Your task to perform on an android device: change keyboard looks Image 0: 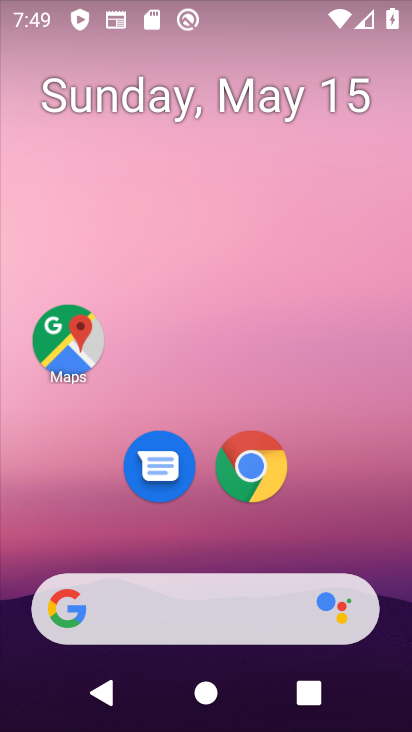
Step 0: drag from (180, 546) to (373, 69)
Your task to perform on an android device: change keyboard looks Image 1: 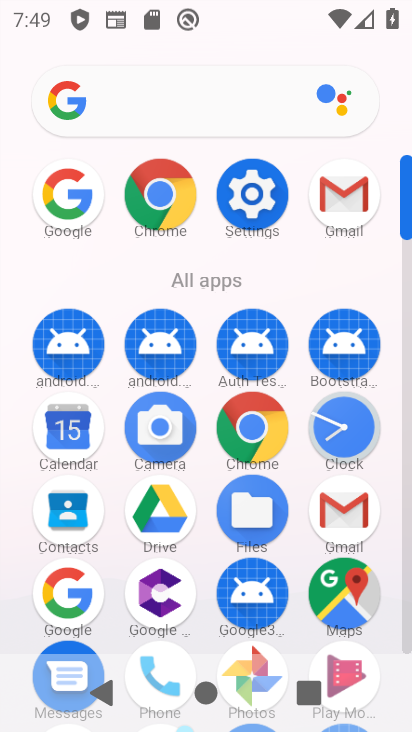
Step 1: click (241, 202)
Your task to perform on an android device: change keyboard looks Image 2: 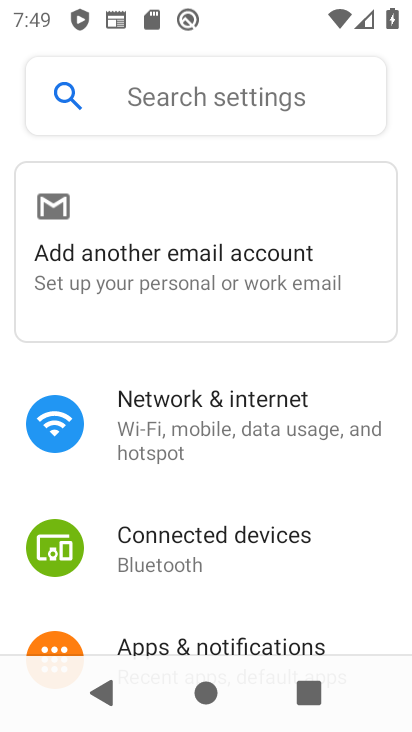
Step 2: drag from (250, 585) to (243, 1)
Your task to perform on an android device: change keyboard looks Image 3: 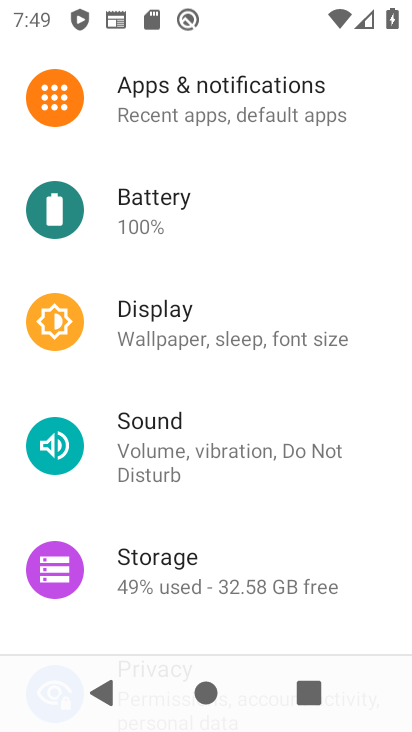
Step 3: drag from (232, 601) to (236, 111)
Your task to perform on an android device: change keyboard looks Image 4: 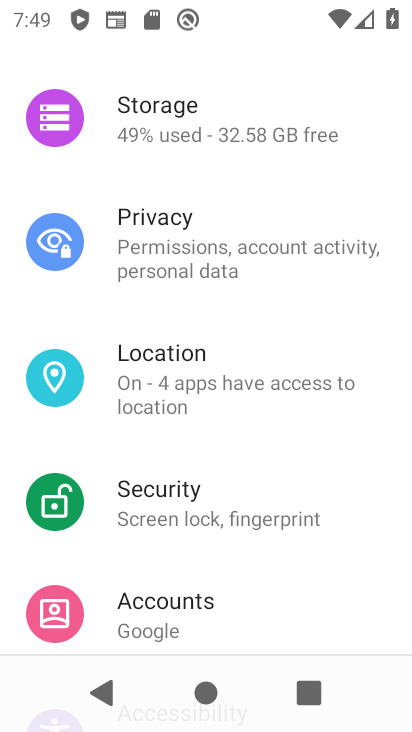
Step 4: drag from (199, 535) to (163, 100)
Your task to perform on an android device: change keyboard looks Image 5: 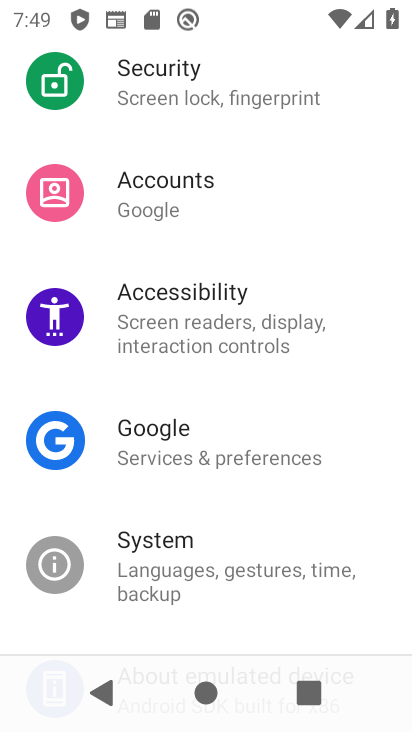
Step 5: click (163, 548)
Your task to perform on an android device: change keyboard looks Image 6: 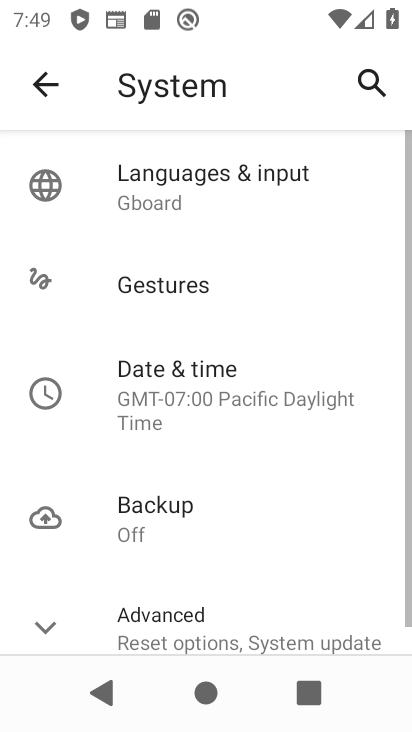
Step 6: drag from (161, 551) to (161, 183)
Your task to perform on an android device: change keyboard looks Image 7: 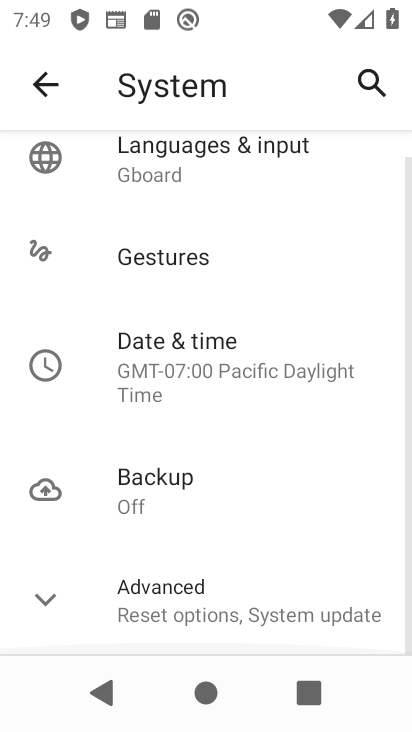
Step 7: click (186, 599)
Your task to perform on an android device: change keyboard looks Image 8: 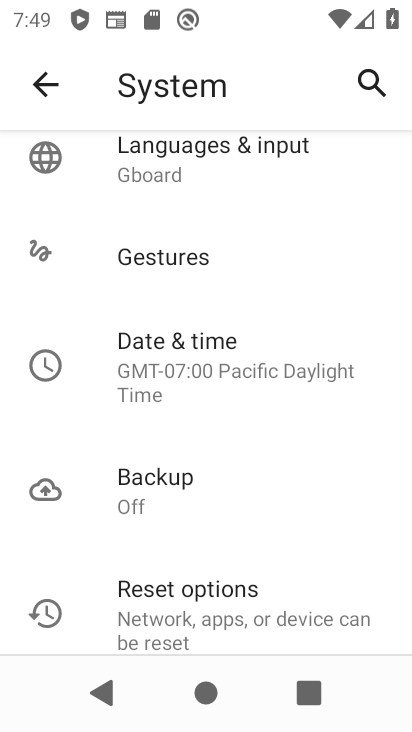
Step 8: drag from (189, 598) to (165, 191)
Your task to perform on an android device: change keyboard looks Image 9: 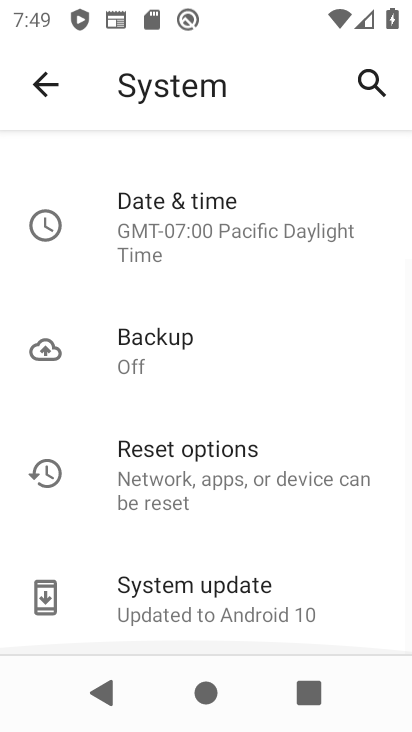
Step 9: drag from (165, 190) to (148, 575)
Your task to perform on an android device: change keyboard looks Image 10: 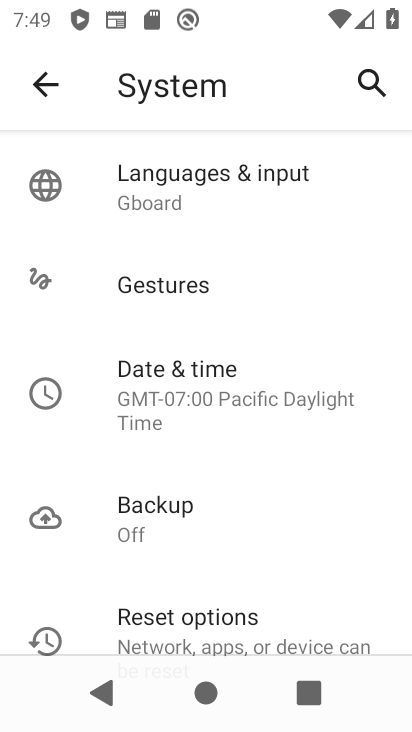
Step 10: click (193, 188)
Your task to perform on an android device: change keyboard looks Image 11: 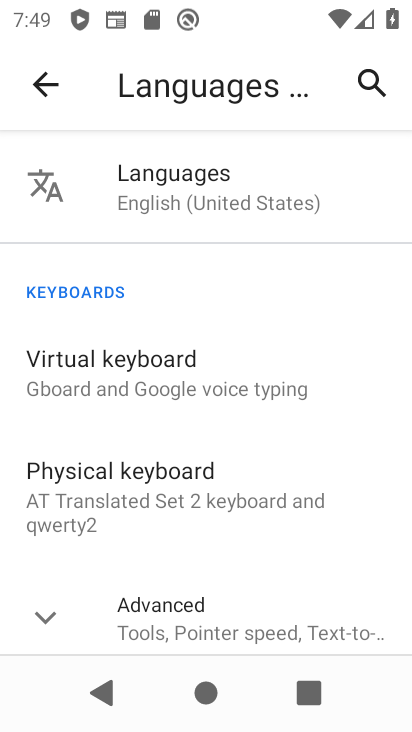
Step 11: click (123, 404)
Your task to perform on an android device: change keyboard looks Image 12: 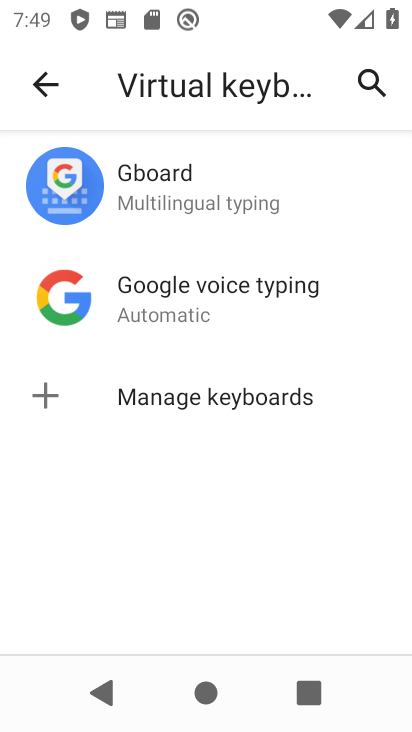
Step 12: click (210, 206)
Your task to perform on an android device: change keyboard looks Image 13: 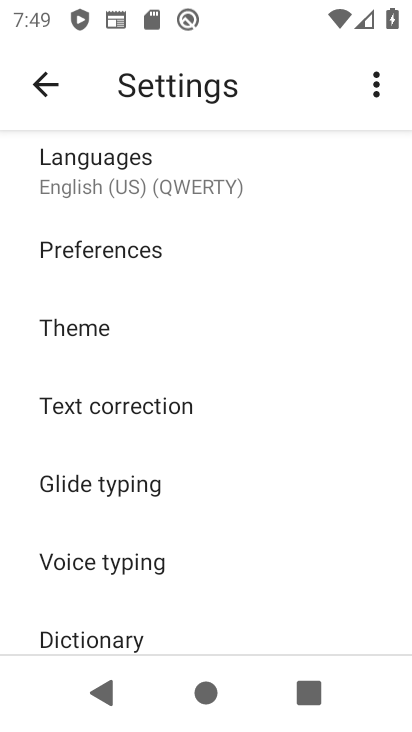
Step 13: click (82, 372)
Your task to perform on an android device: change keyboard looks Image 14: 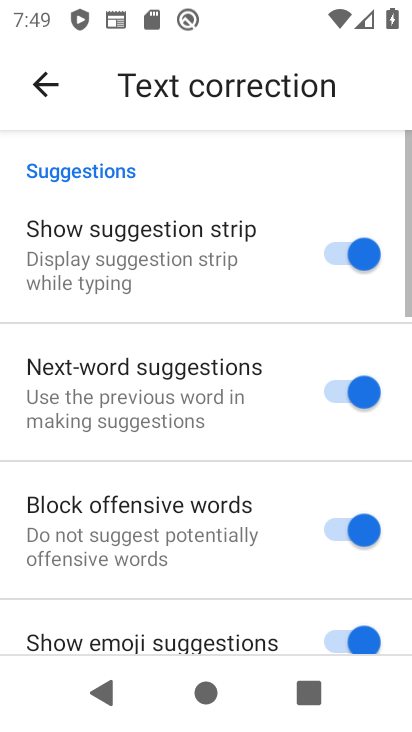
Step 14: click (24, 78)
Your task to perform on an android device: change keyboard looks Image 15: 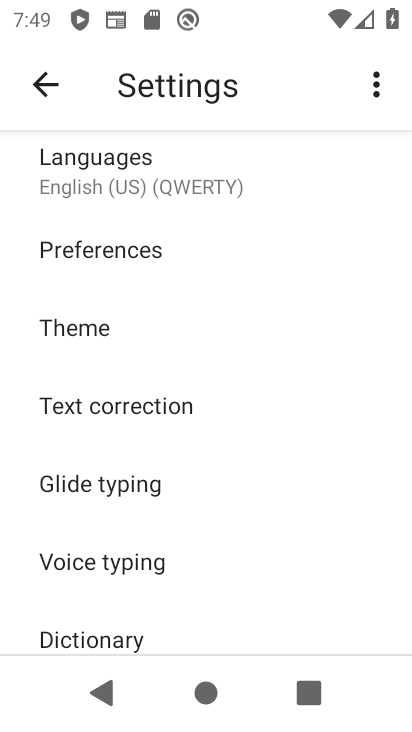
Step 15: click (93, 312)
Your task to perform on an android device: change keyboard looks Image 16: 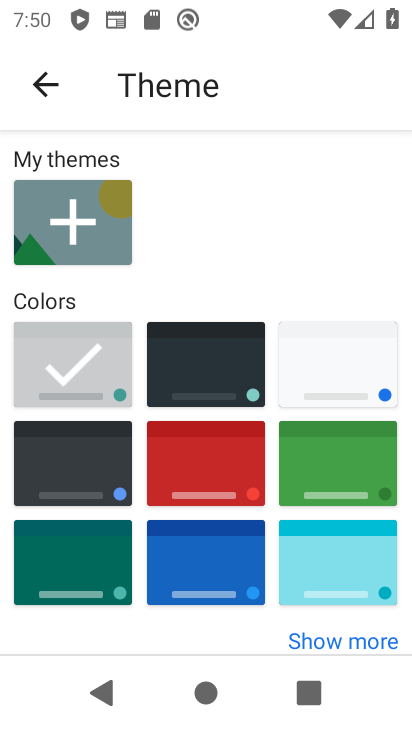
Step 16: click (174, 374)
Your task to perform on an android device: change keyboard looks Image 17: 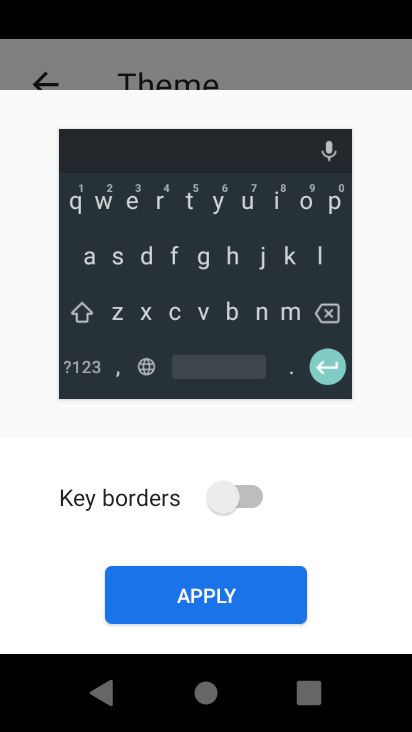
Step 17: click (236, 602)
Your task to perform on an android device: change keyboard looks Image 18: 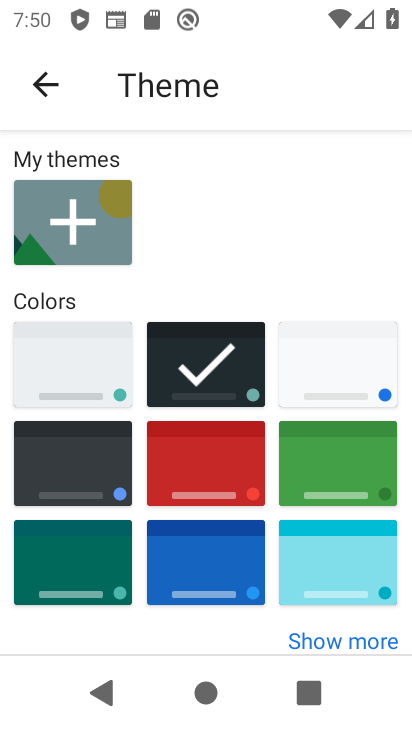
Step 18: task complete